Your task to perform on an android device: open chrome privacy settings Image 0: 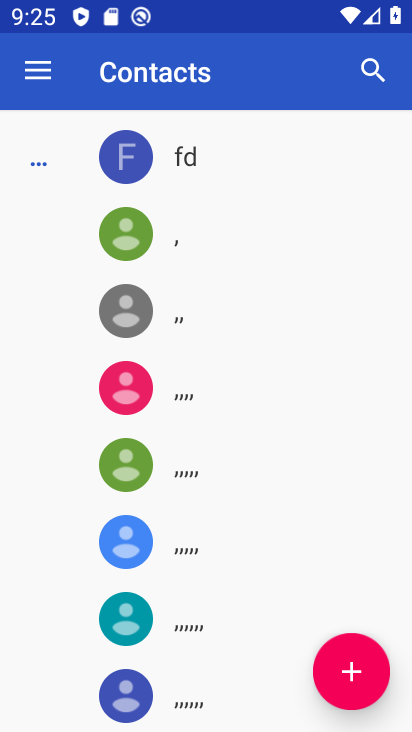
Step 0: press home button
Your task to perform on an android device: open chrome privacy settings Image 1: 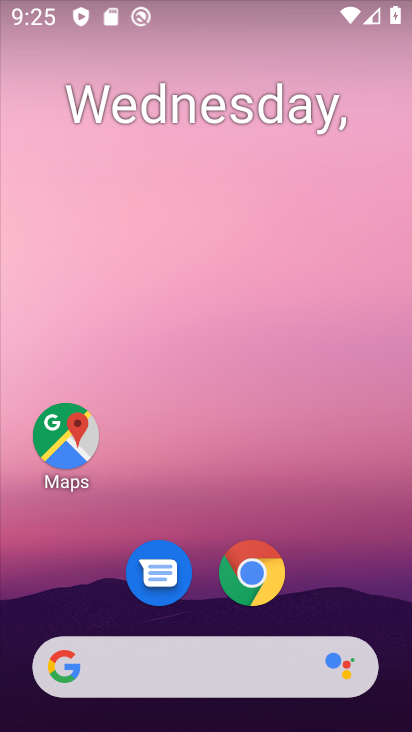
Step 1: click (237, 560)
Your task to perform on an android device: open chrome privacy settings Image 2: 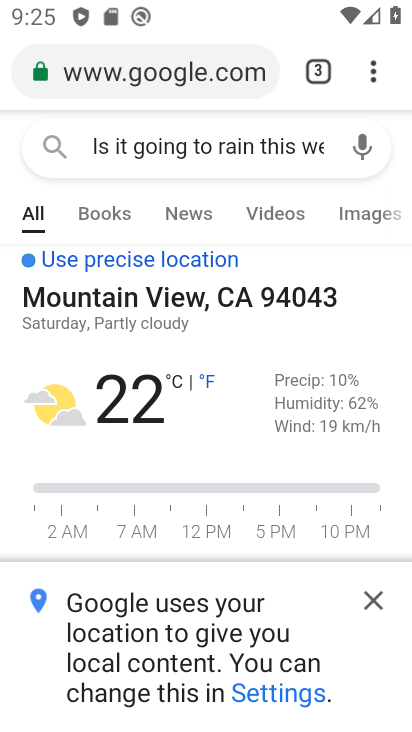
Step 2: click (377, 72)
Your task to perform on an android device: open chrome privacy settings Image 3: 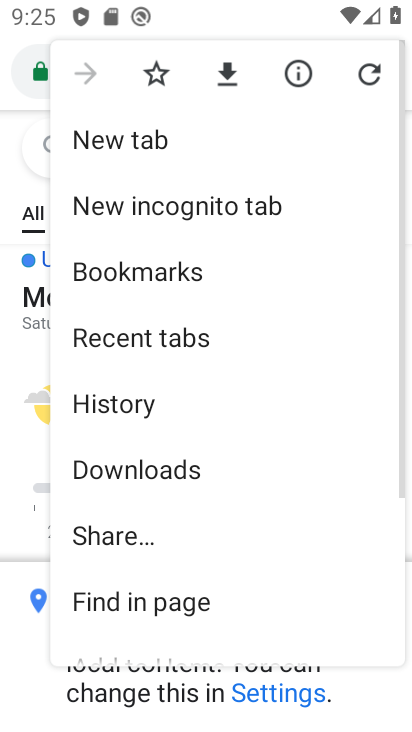
Step 3: drag from (214, 566) to (220, 207)
Your task to perform on an android device: open chrome privacy settings Image 4: 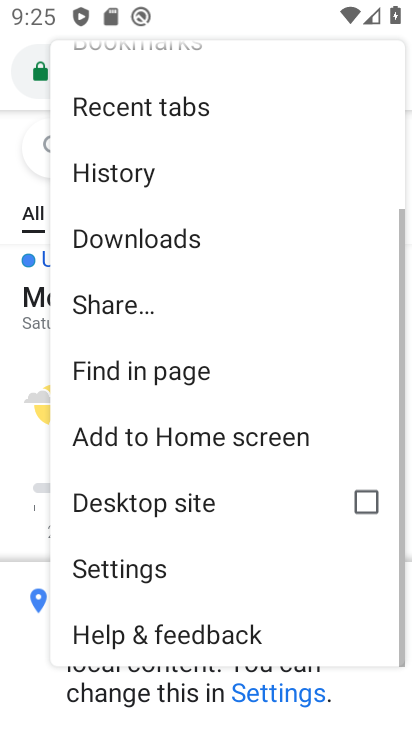
Step 4: click (127, 564)
Your task to perform on an android device: open chrome privacy settings Image 5: 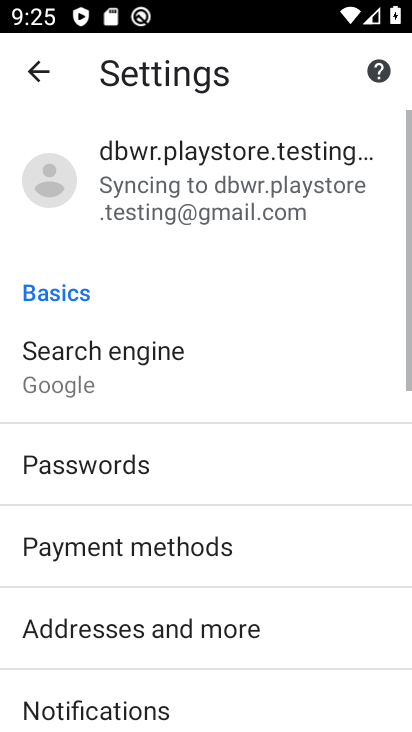
Step 5: drag from (182, 600) to (195, 329)
Your task to perform on an android device: open chrome privacy settings Image 6: 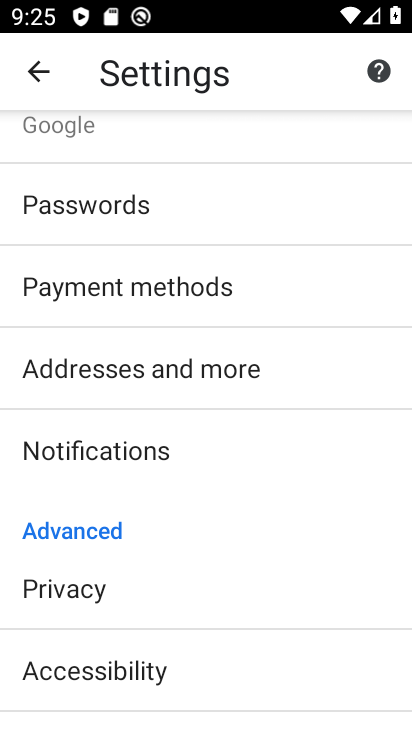
Step 6: click (154, 584)
Your task to perform on an android device: open chrome privacy settings Image 7: 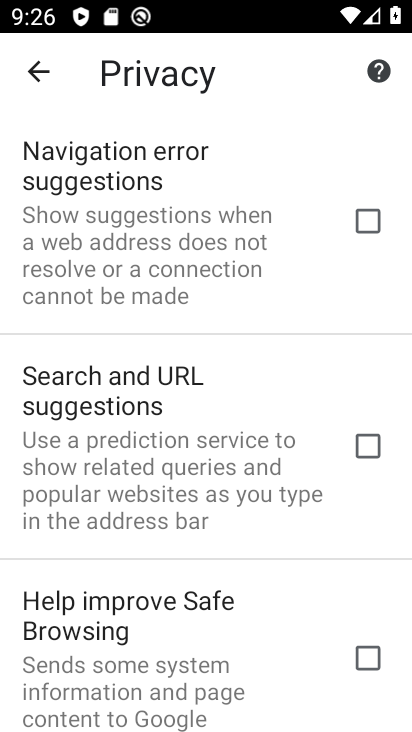
Step 7: task complete